Your task to perform on an android device: Open Amazon Image 0: 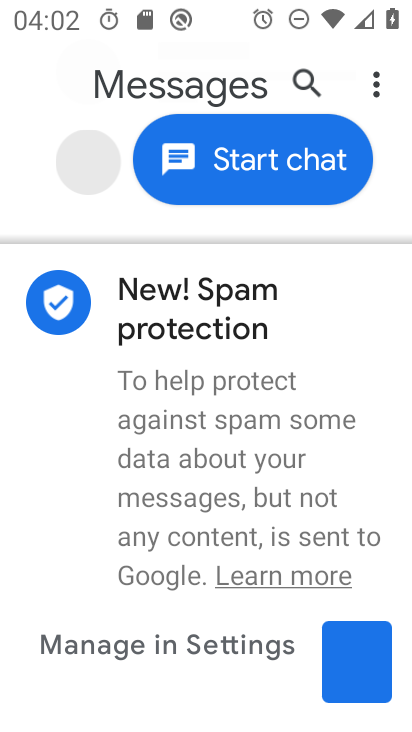
Step 0: press home button
Your task to perform on an android device: Open Amazon Image 1: 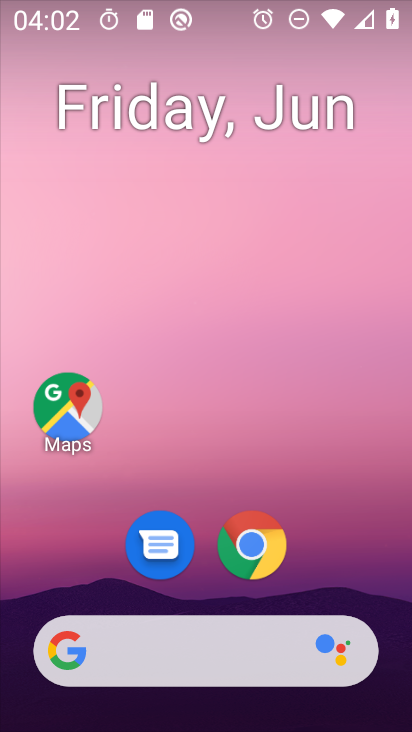
Step 1: click (248, 550)
Your task to perform on an android device: Open Amazon Image 2: 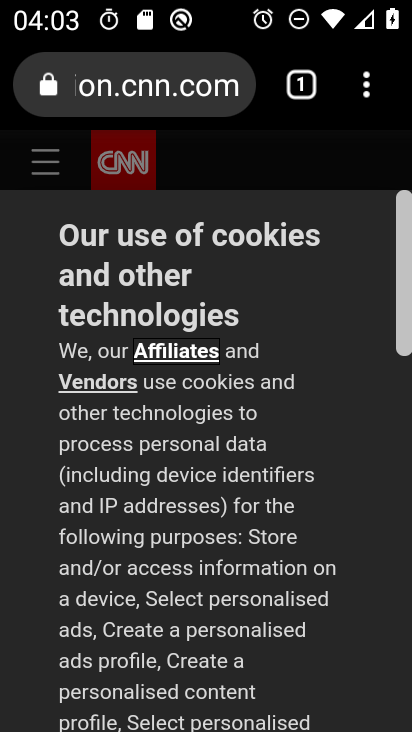
Step 2: click (140, 94)
Your task to perform on an android device: Open Amazon Image 3: 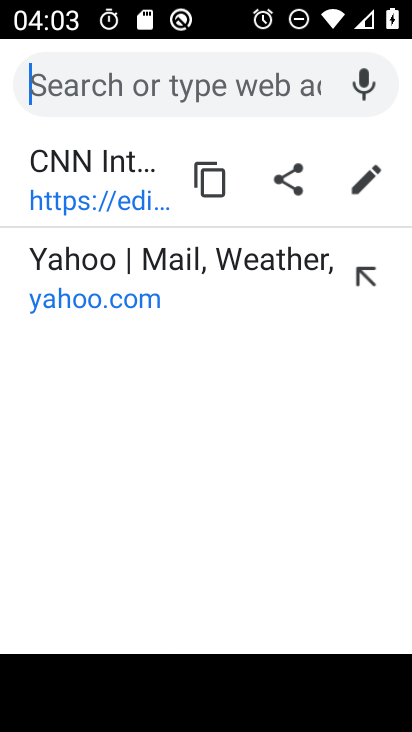
Step 3: type "amazon"
Your task to perform on an android device: Open Amazon Image 4: 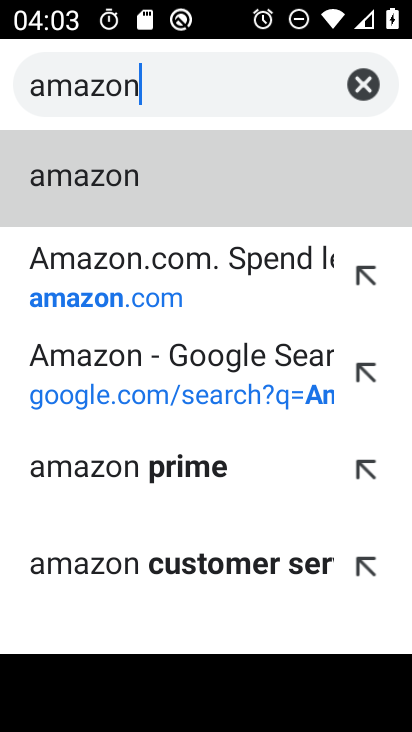
Step 4: click (119, 203)
Your task to perform on an android device: Open Amazon Image 5: 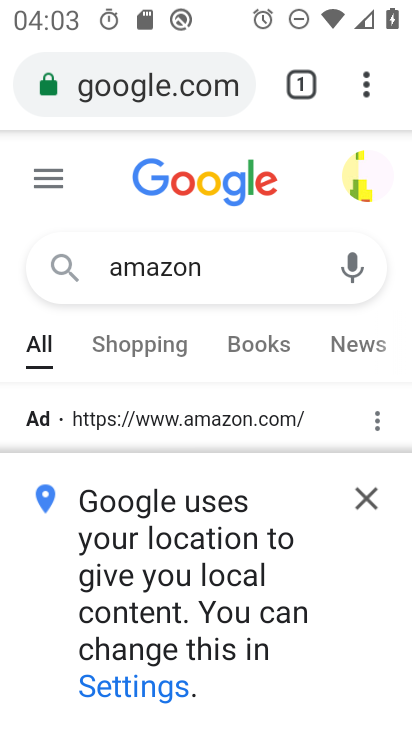
Step 5: click (373, 500)
Your task to perform on an android device: Open Amazon Image 6: 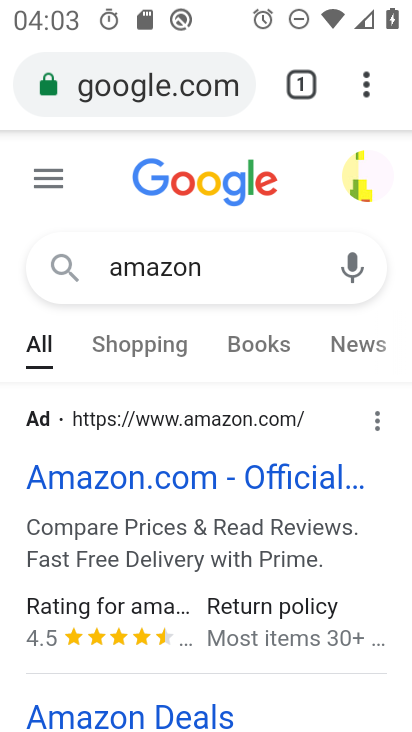
Step 6: click (127, 478)
Your task to perform on an android device: Open Amazon Image 7: 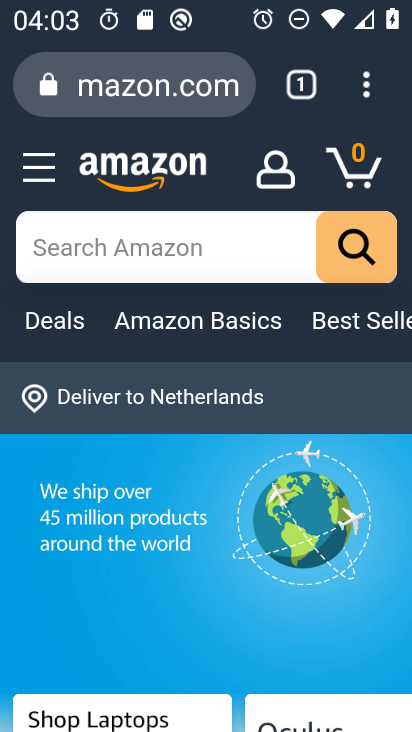
Step 7: task complete